Your task to perform on an android device: turn off wifi Image 0: 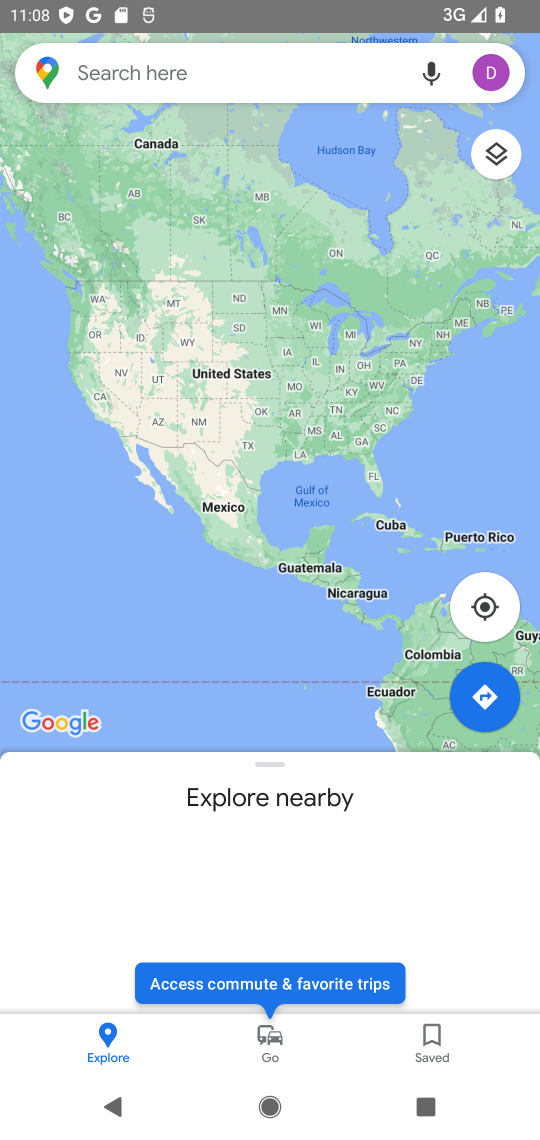
Step 0: press home button
Your task to perform on an android device: turn off wifi Image 1: 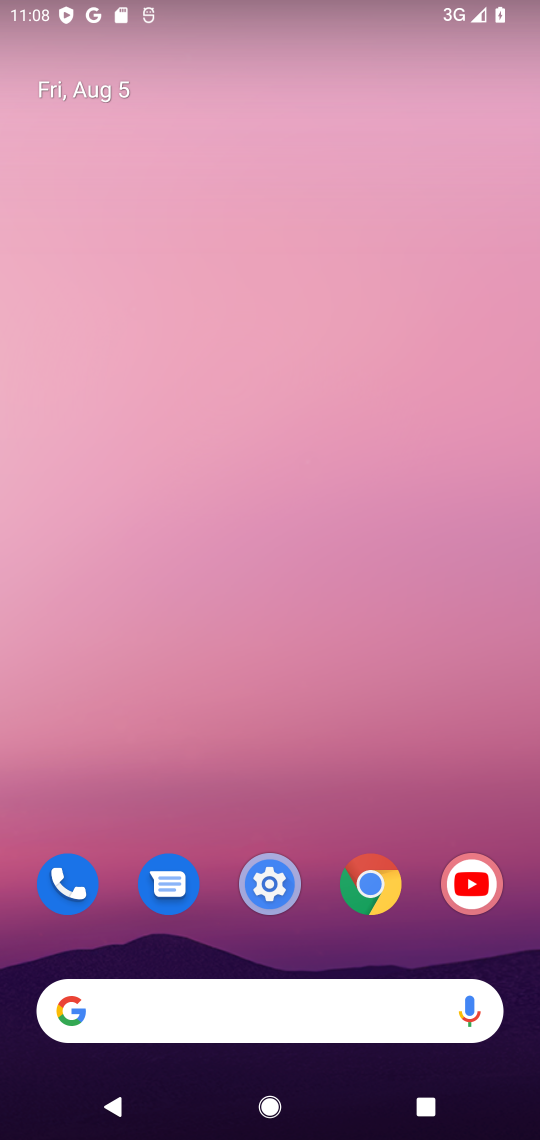
Step 1: click (258, 888)
Your task to perform on an android device: turn off wifi Image 2: 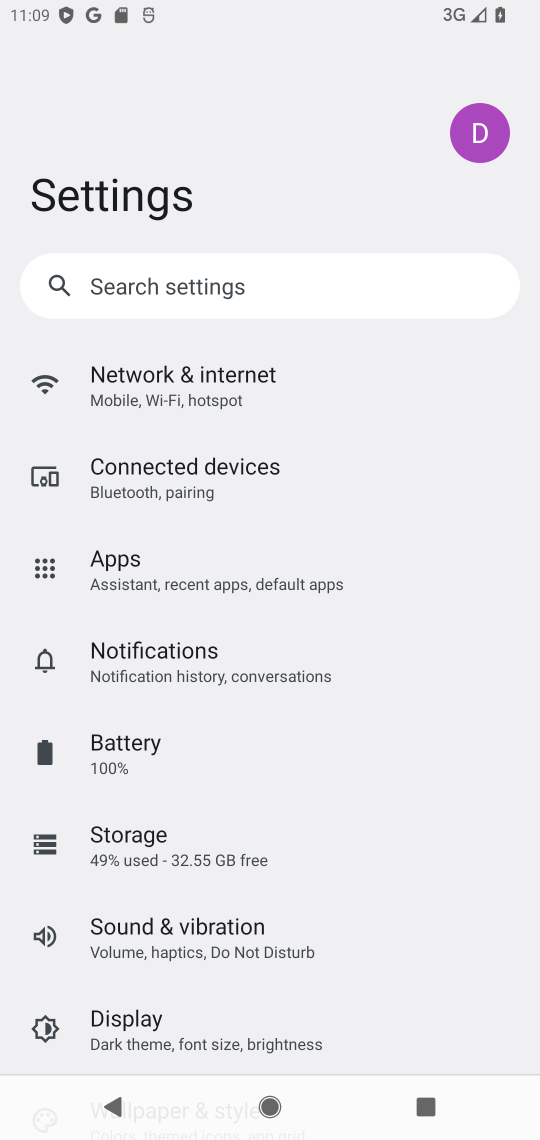
Step 2: click (215, 398)
Your task to perform on an android device: turn off wifi Image 3: 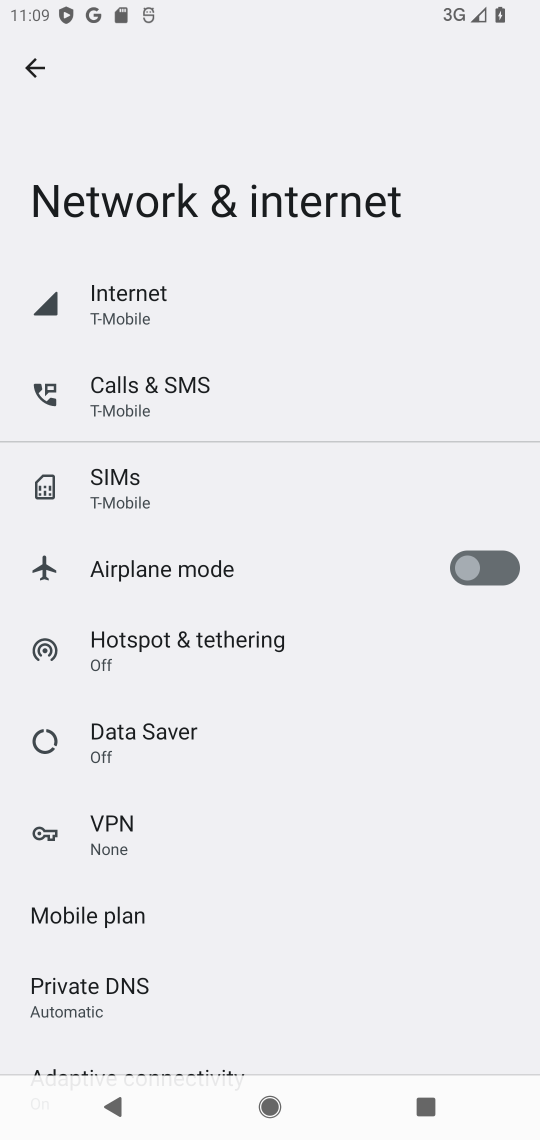
Step 3: click (158, 310)
Your task to perform on an android device: turn off wifi Image 4: 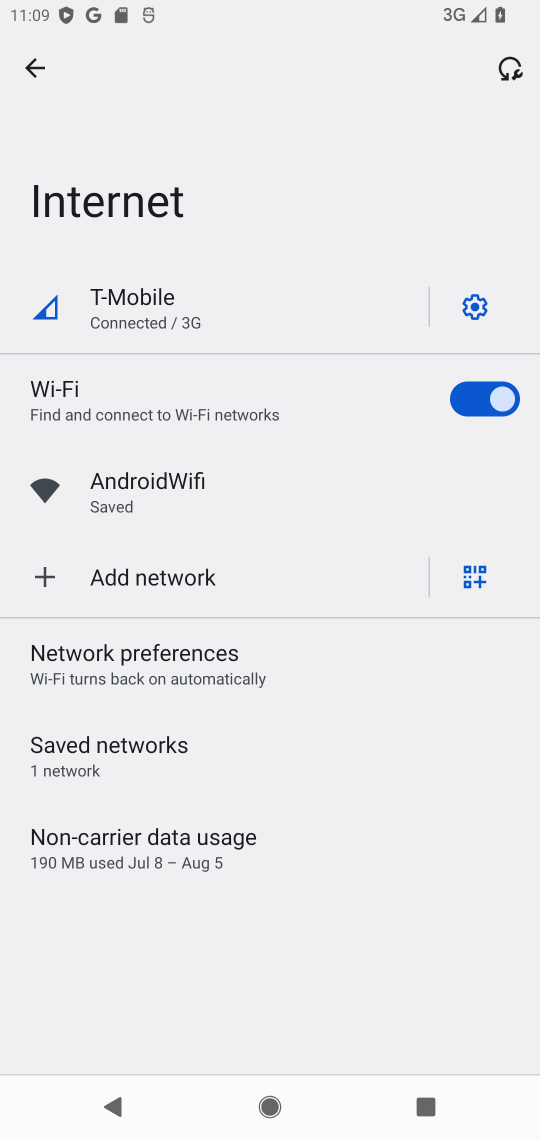
Step 4: click (279, 401)
Your task to perform on an android device: turn off wifi Image 5: 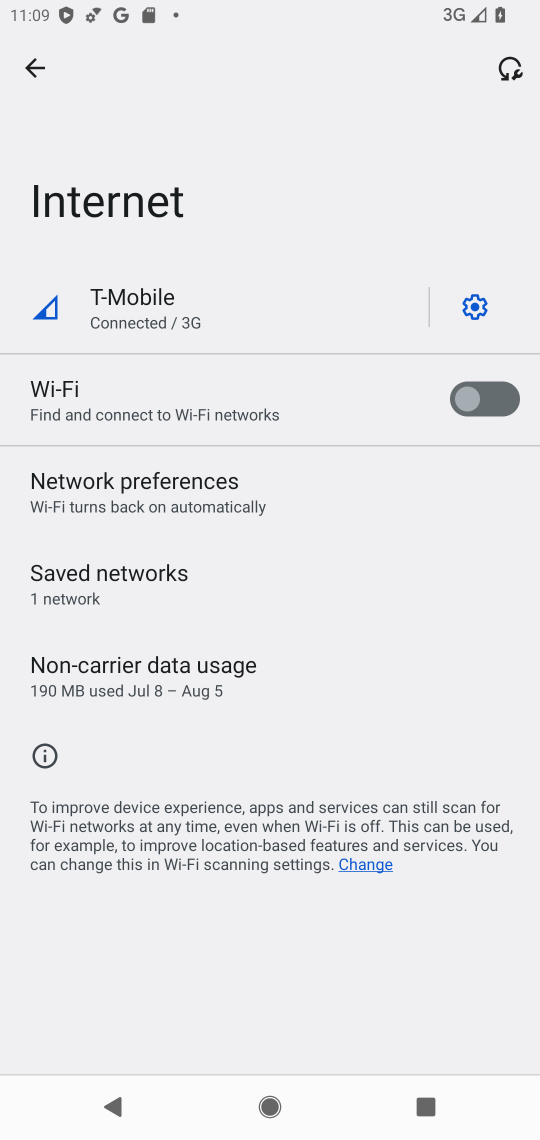
Step 5: task complete